Your task to perform on an android device: Go to settings Image 0: 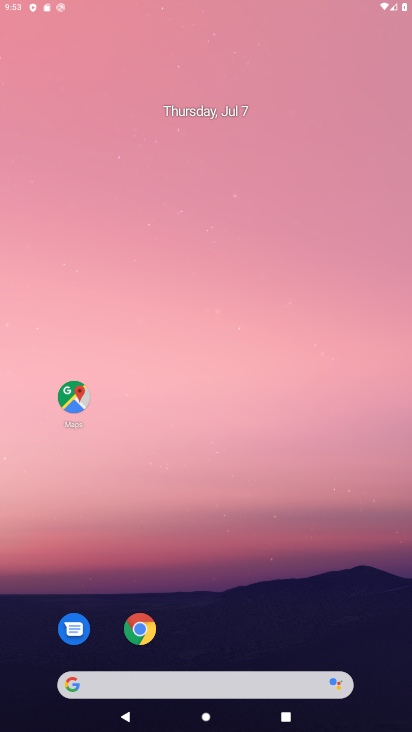
Step 0: press home button
Your task to perform on an android device: Go to settings Image 1: 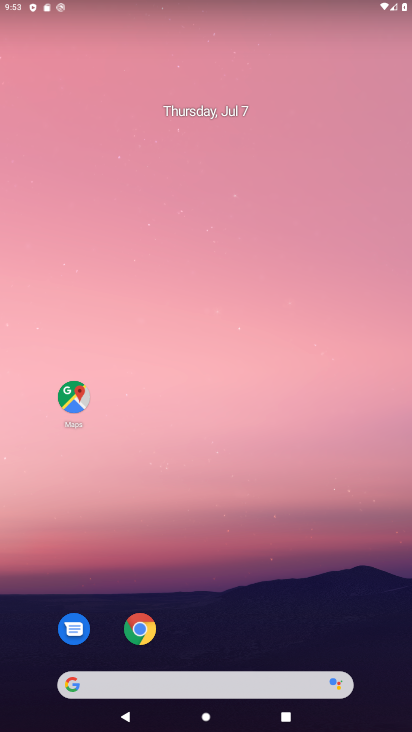
Step 1: drag from (276, 635) to (294, 86)
Your task to perform on an android device: Go to settings Image 2: 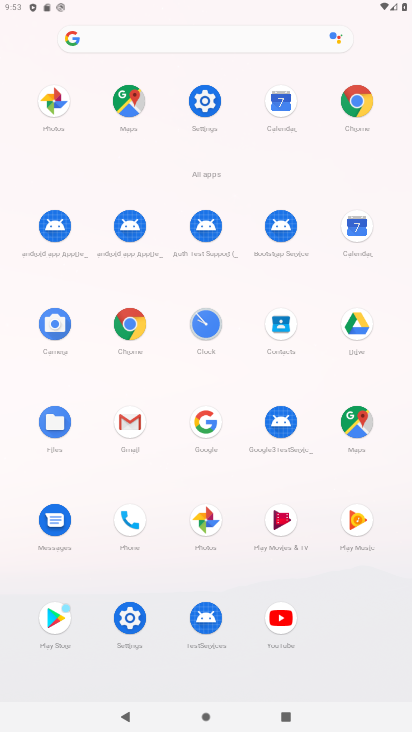
Step 2: click (130, 615)
Your task to perform on an android device: Go to settings Image 3: 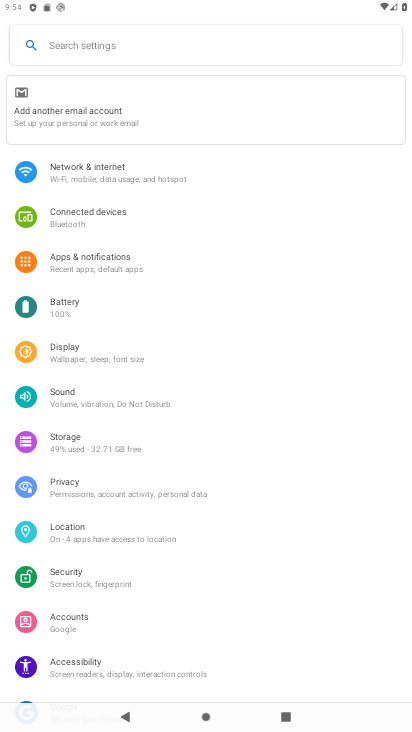
Step 3: task complete